Your task to perform on an android device: View the shopping cart on newegg.com. Add "razer deathadder" to the cart on newegg.com Image 0: 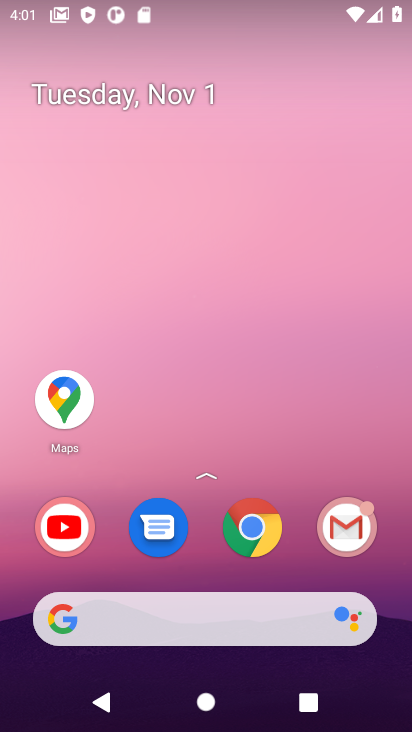
Step 0: click (172, 614)
Your task to perform on an android device: View the shopping cart on newegg.com. Add "razer deathadder" to the cart on newegg.com Image 1: 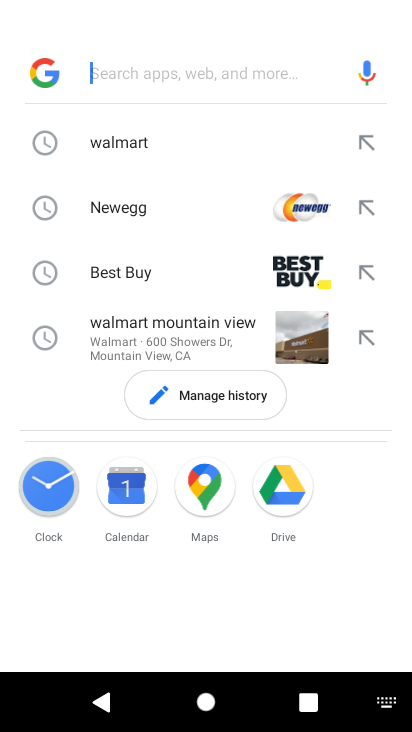
Step 1: click (201, 213)
Your task to perform on an android device: View the shopping cart on newegg.com. Add "razer deathadder" to the cart on newegg.com Image 2: 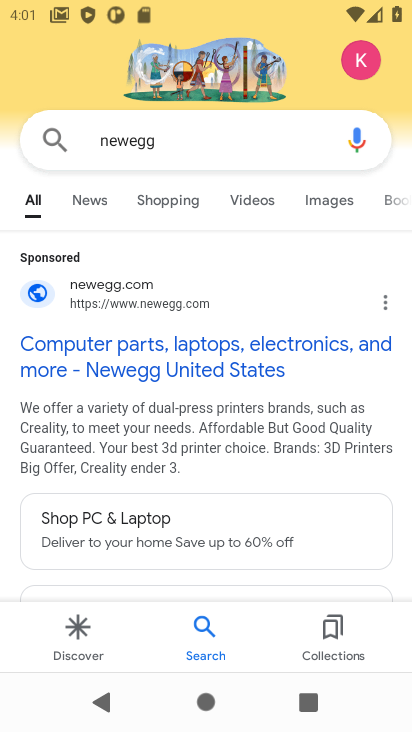
Step 2: click (98, 292)
Your task to perform on an android device: View the shopping cart on newegg.com. Add "razer deathadder" to the cart on newegg.com Image 3: 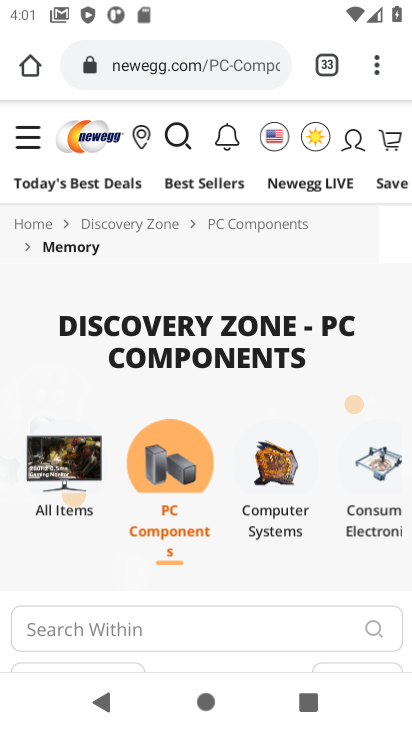
Step 3: click (174, 137)
Your task to perform on an android device: View the shopping cart on newegg.com. Add "razer deathadder" to the cart on newegg.com Image 4: 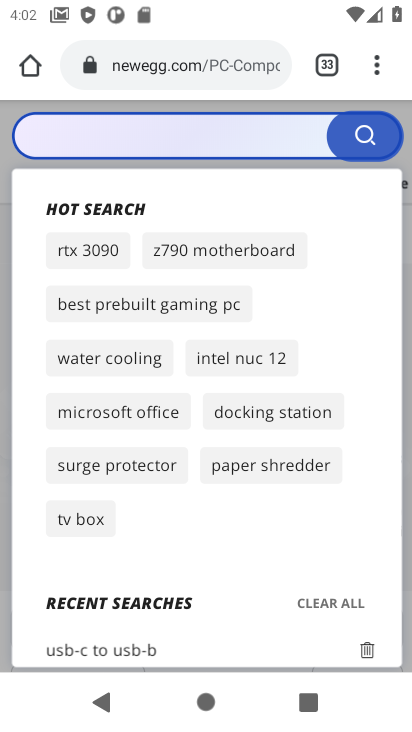
Step 4: click (229, 132)
Your task to perform on an android device: View the shopping cart on newegg.com. Add "razer deathadder" to the cart on newegg.com Image 5: 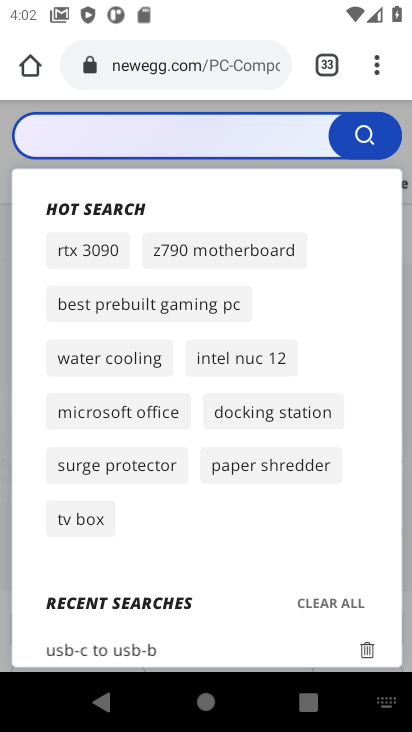
Step 5: type "razer deathadder"
Your task to perform on an android device: View the shopping cart on newegg.com. Add "razer deathadder" to the cart on newegg.com Image 6: 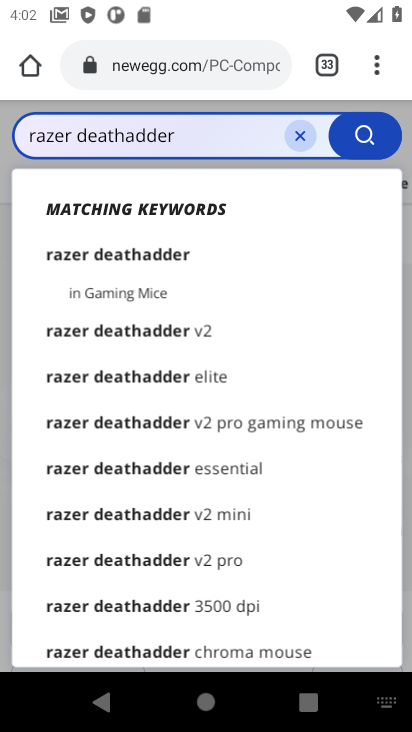
Step 6: click (140, 251)
Your task to perform on an android device: View the shopping cart on newegg.com. Add "razer deathadder" to the cart on newegg.com Image 7: 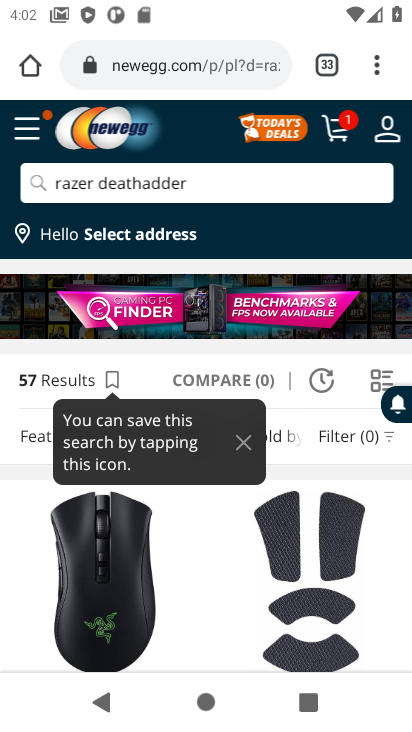
Step 7: click (104, 592)
Your task to perform on an android device: View the shopping cart on newegg.com. Add "razer deathadder" to the cart on newegg.com Image 8: 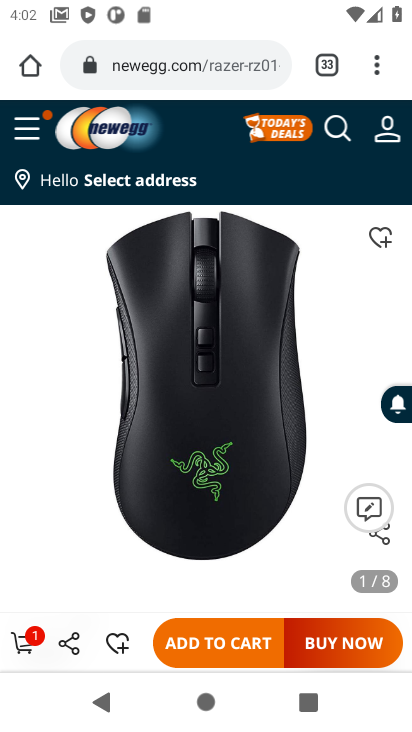
Step 8: click (238, 627)
Your task to perform on an android device: View the shopping cart on newegg.com. Add "razer deathadder" to the cart on newegg.com Image 9: 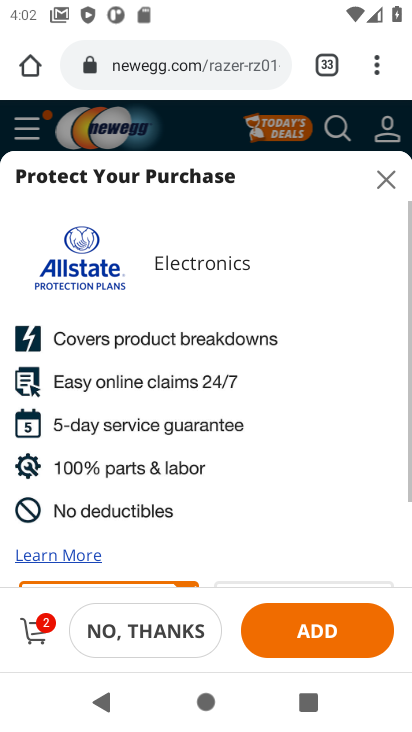
Step 9: task complete